Your task to perform on an android device: Search for Italian restaurants on Maps Image 0: 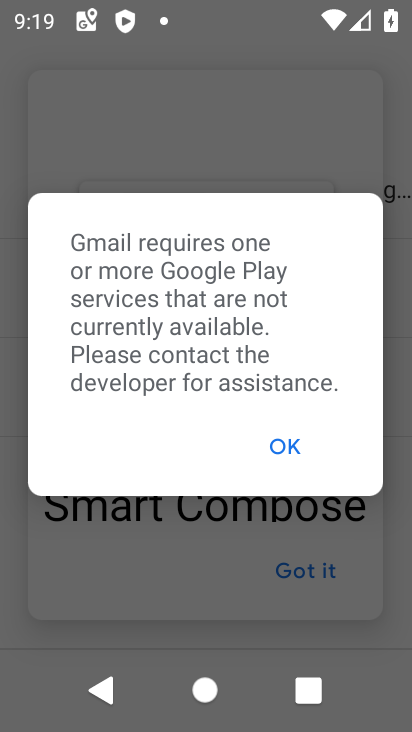
Step 0: press home button
Your task to perform on an android device: Search for Italian restaurants on Maps Image 1: 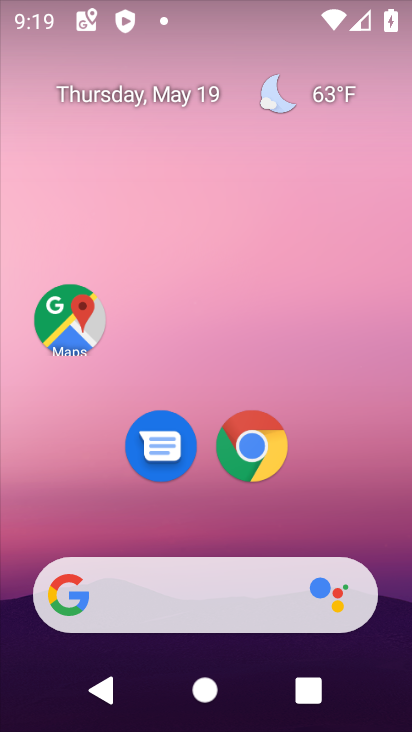
Step 1: click (68, 339)
Your task to perform on an android device: Search for Italian restaurants on Maps Image 2: 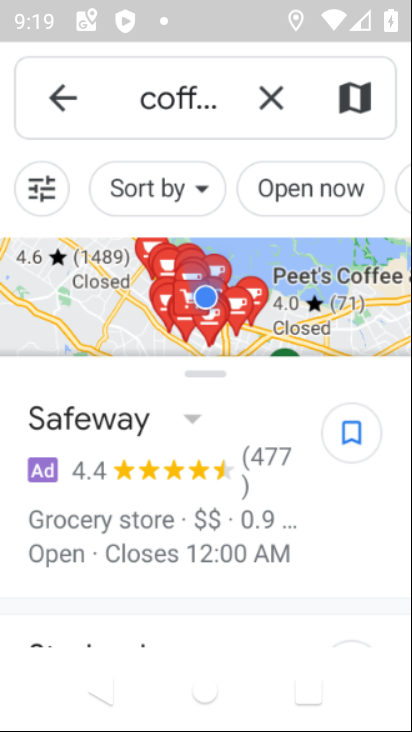
Step 2: click (266, 97)
Your task to perform on an android device: Search for Italian restaurants on Maps Image 3: 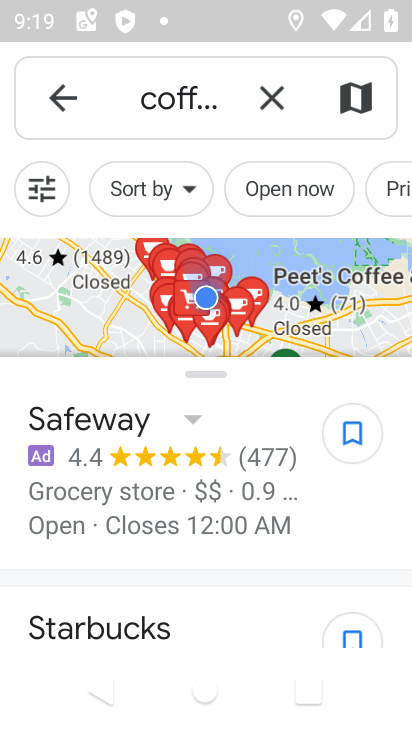
Step 3: click (262, 98)
Your task to perform on an android device: Search for Italian restaurants on Maps Image 4: 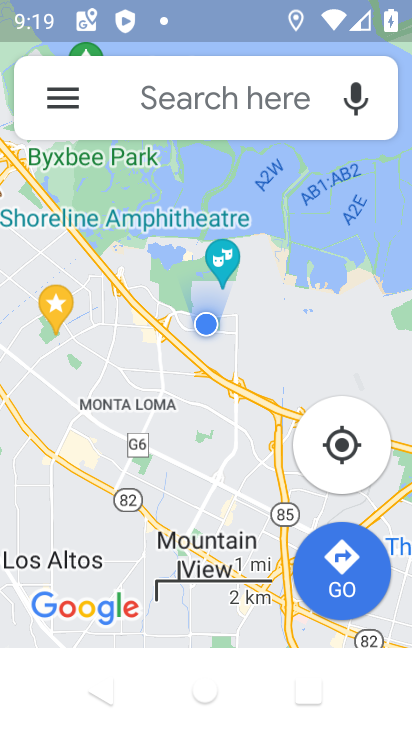
Step 4: click (198, 93)
Your task to perform on an android device: Search for Italian restaurants on Maps Image 5: 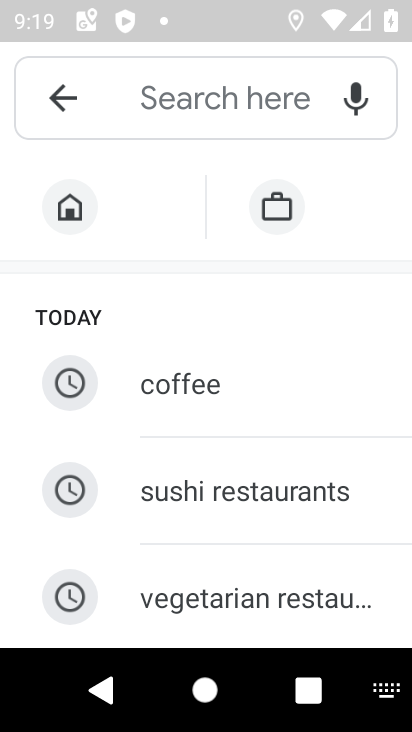
Step 5: type "italian restaurants"
Your task to perform on an android device: Search for Italian restaurants on Maps Image 6: 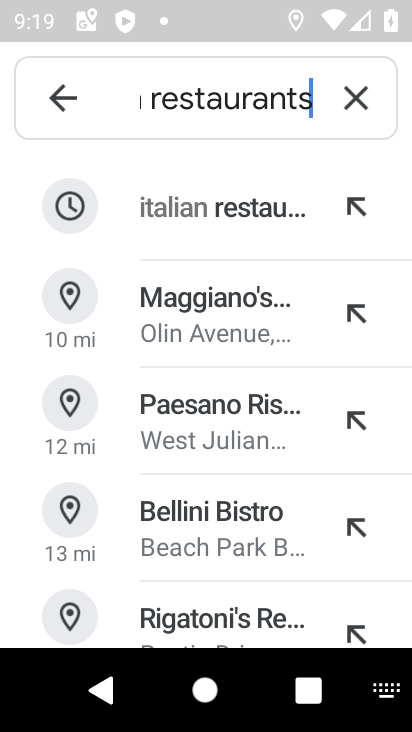
Step 6: click (253, 223)
Your task to perform on an android device: Search for Italian restaurants on Maps Image 7: 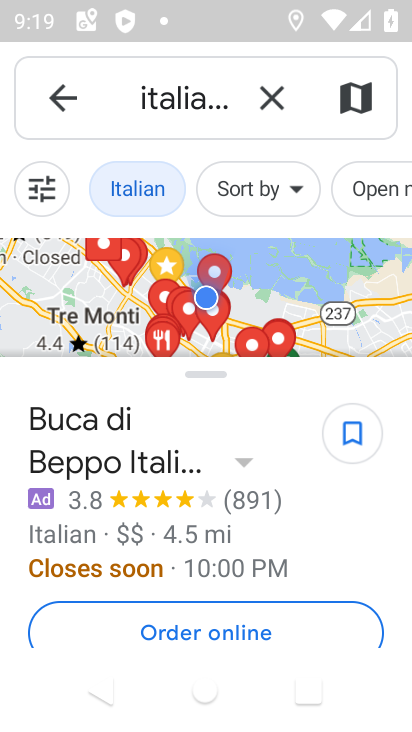
Step 7: task complete